Your task to perform on an android device: allow cookies in the chrome app Image 0: 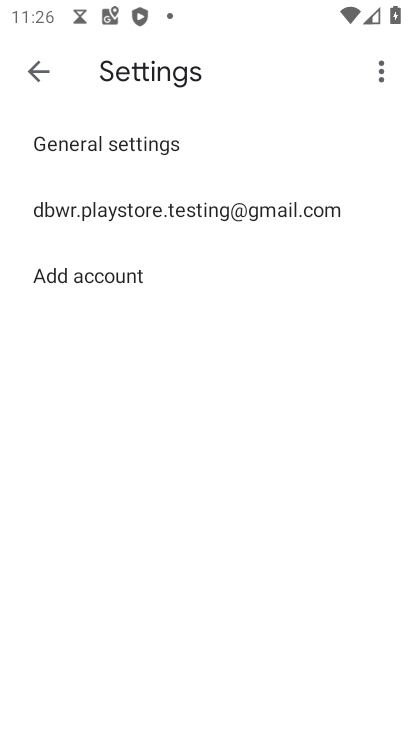
Step 0: press home button
Your task to perform on an android device: allow cookies in the chrome app Image 1: 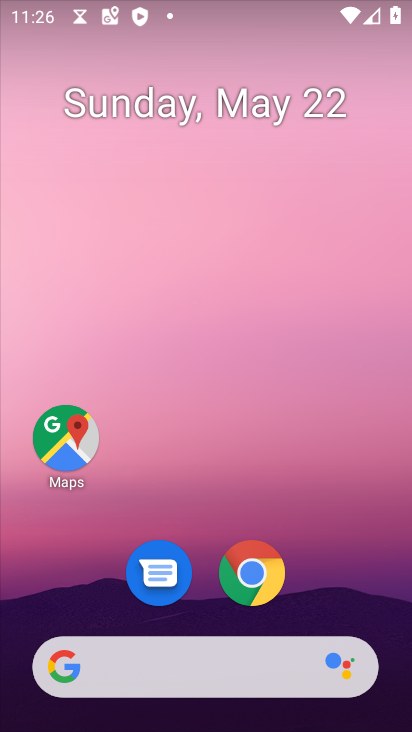
Step 1: click (250, 588)
Your task to perform on an android device: allow cookies in the chrome app Image 2: 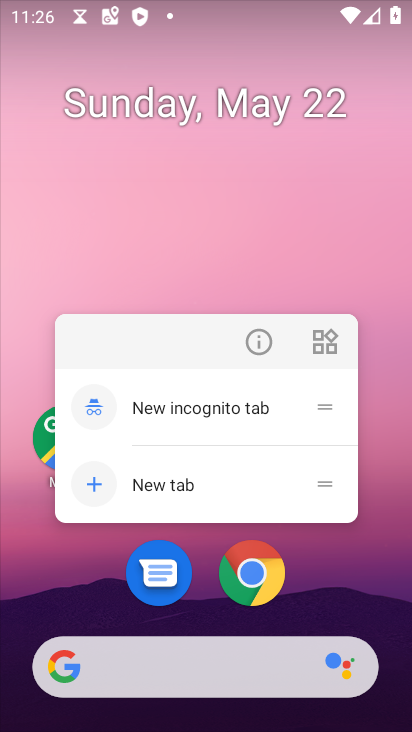
Step 2: click (250, 588)
Your task to perform on an android device: allow cookies in the chrome app Image 3: 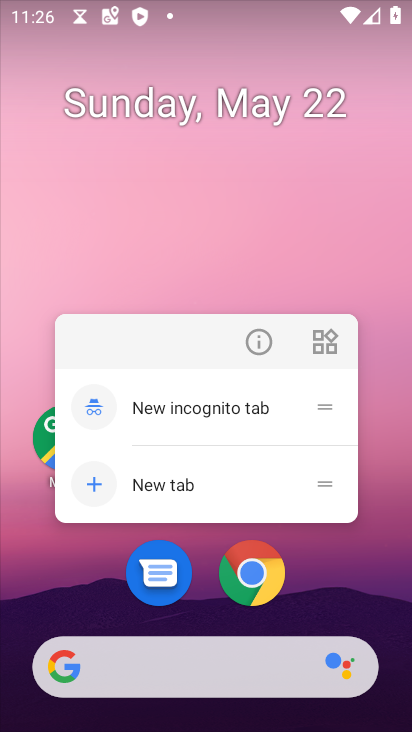
Step 3: click (253, 580)
Your task to perform on an android device: allow cookies in the chrome app Image 4: 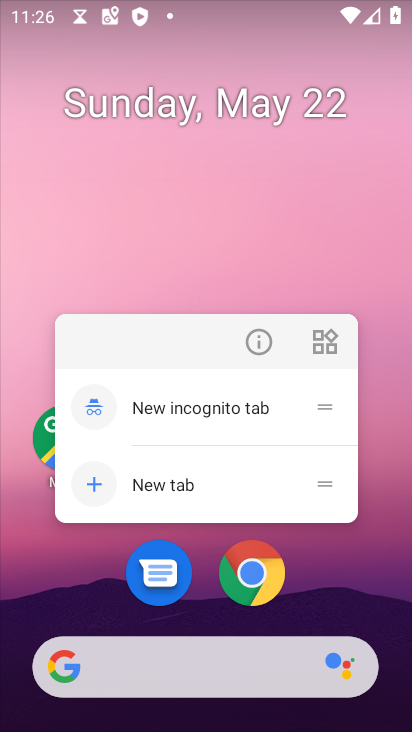
Step 4: click (249, 567)
Your task to perform on an android device: allow cookies in the chrome app Image 5: 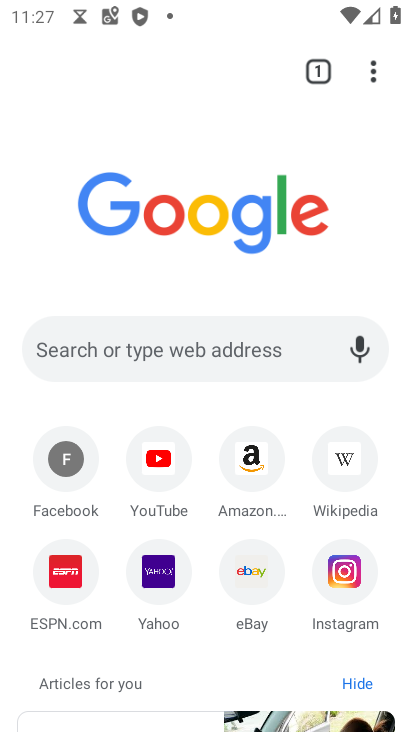
Step 5: drag from (374, 75) to (224, 589)
Your task to perform on an android device: allow cookies in the chrome app Image 6: 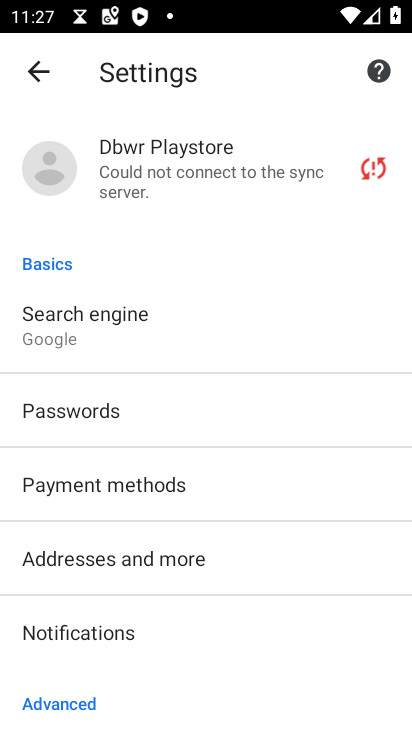
Step 6: drag from (197, 624) to (285, 318)
Your task to perform on an android device: allow cookies in the chrome app Image 7: 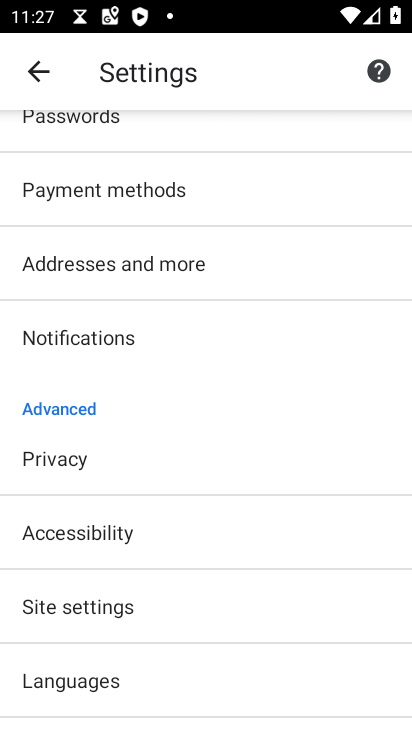
Step 7: click (109, 602)
Your task to perform on an android device: allow cookies in the chrome app Image 8: 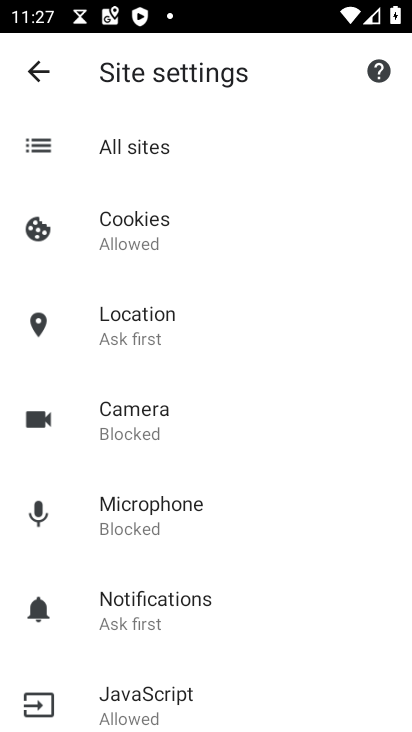
Step 8: click (151, 233)
Your task to perform on an android device: allow cookies in the chrome app Image 9: 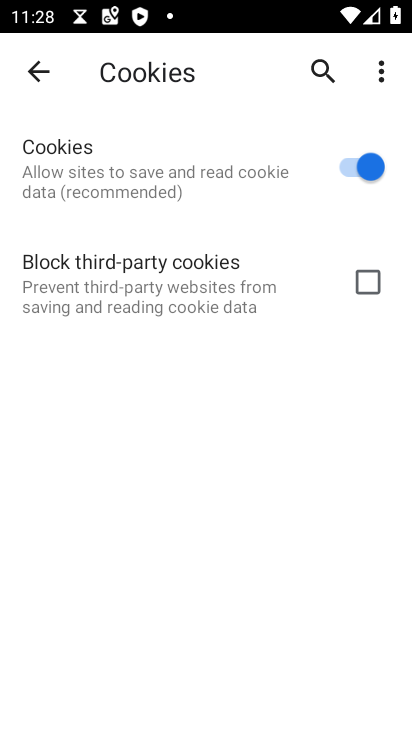
Step 9: task complete